Your task to perform on an android device: Go to internet settings Image 0: 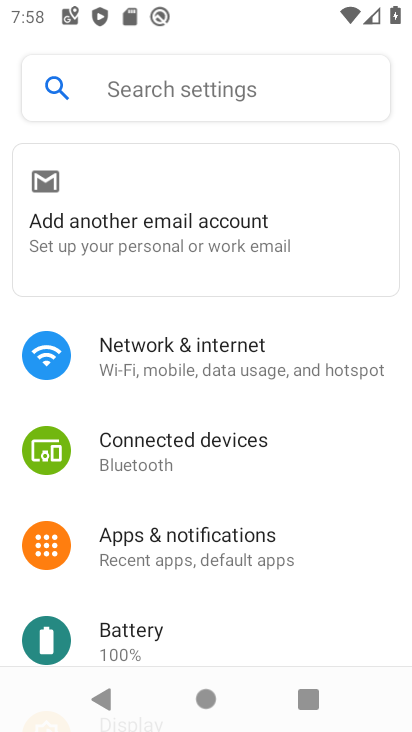
Step 0: click (219, 364)
Your task to perform on an android device: Go to internet settings Image 1: 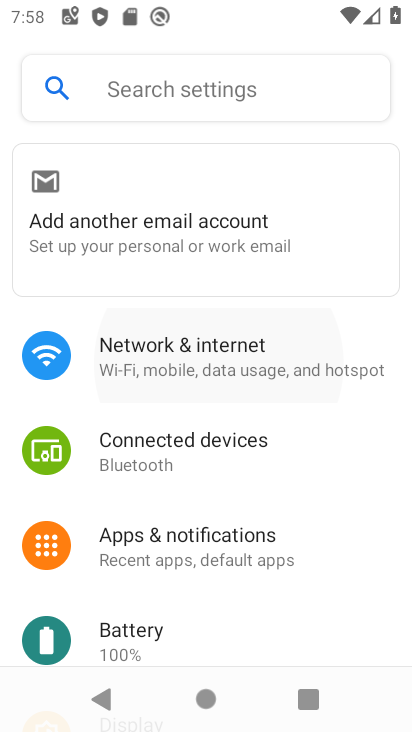
Step 1: click (224, 364)
Your task to perform on an android device: Go to internet settings Image 2: 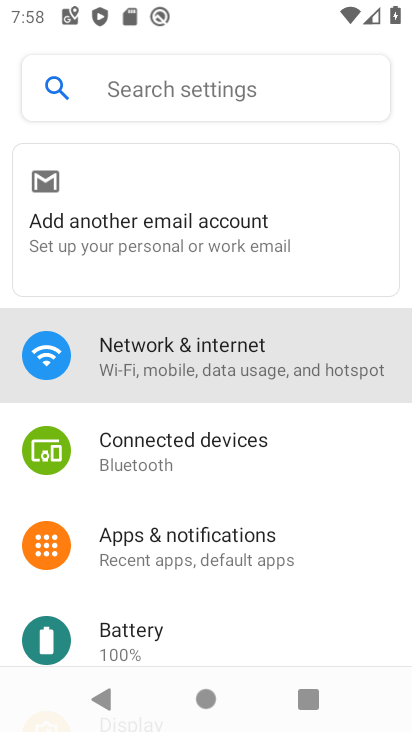
Step 2: click (225, 361)
Your task to perform on an android device: Go to internet settings Image 3: 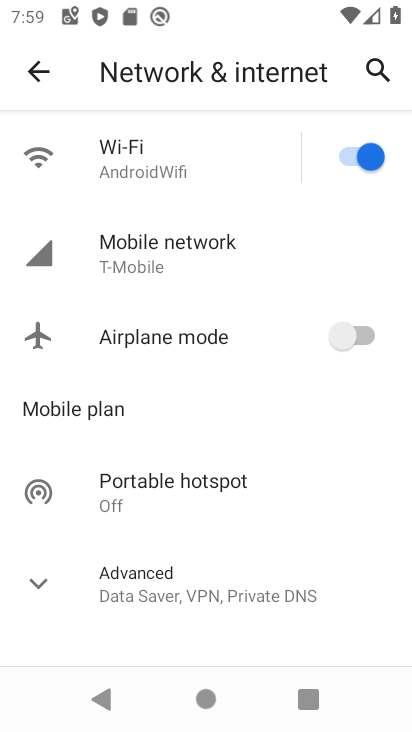
Step 3: task complete